Your task to perform on an android device: Go to internet settings Image 0: 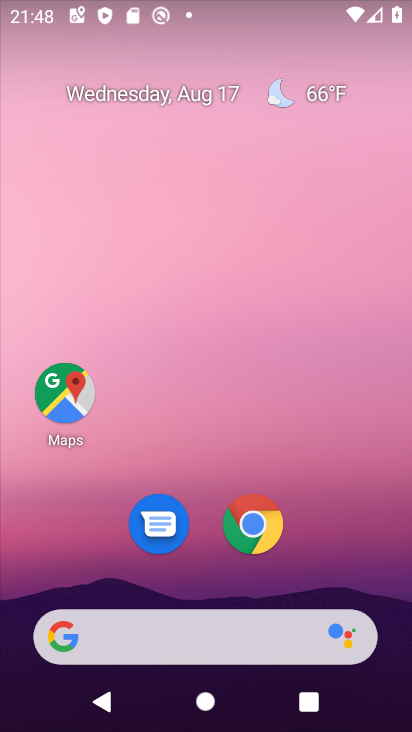
Step 0: drag from (323, 562) to (340, 0)
Your task to perform on an android device: Go to internet settings Image 1: 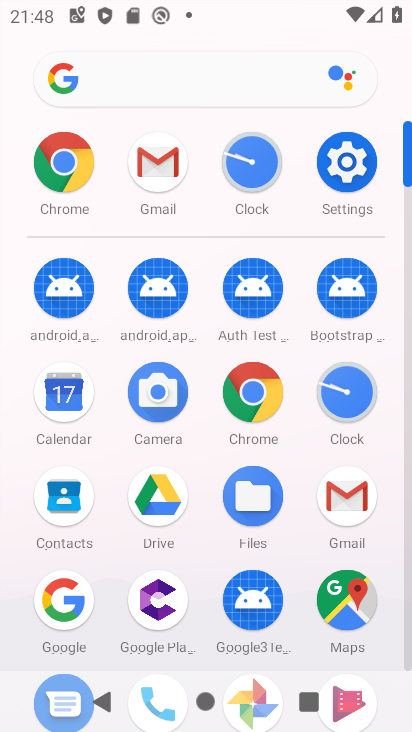
Step 1: click (343, 160)
Your task to perform on an android device: Go to internet settings Image 2: 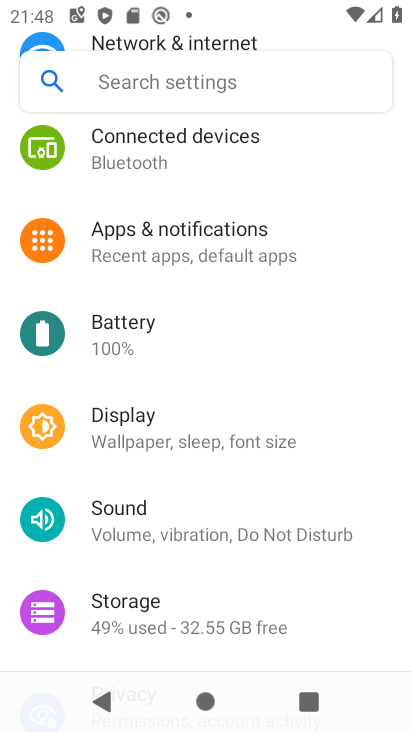
Step 2: drag from (252, 299) to (220, 602)
Your task to perform on an android device: Go to internet settings Image 3: 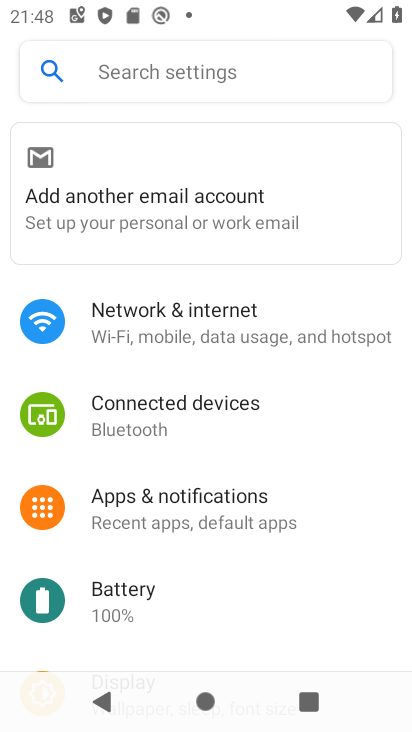
Step 3: click (269, 322)
Your task to perform on an android device: Go to internet settings Image 4: 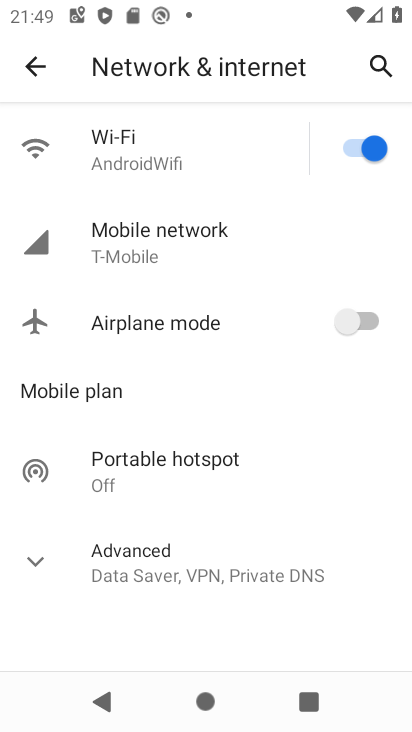
Step 4: task complete